Your task to perform on an android device: Go to calendar. Show me events next week Image 0: 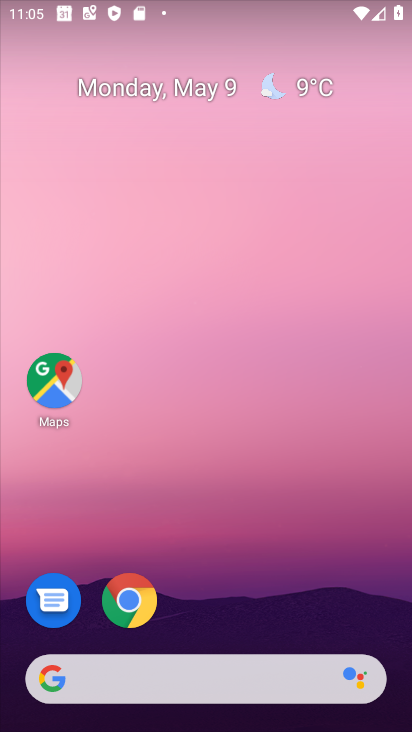
Step 0: drag from (344, 587) to (340, 179)
Your task to perform on an android device: Go to calendar. Show me events next week Image 1: 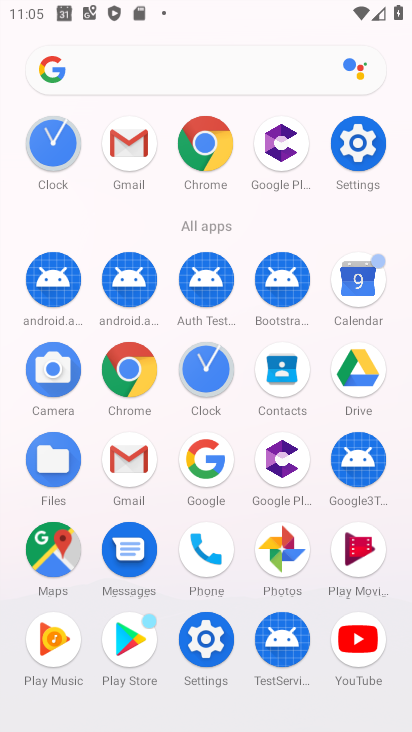
Step 1: click (352, 293)
Your task to perform on an android device: Go to calendar. Show me events next week Image 2: 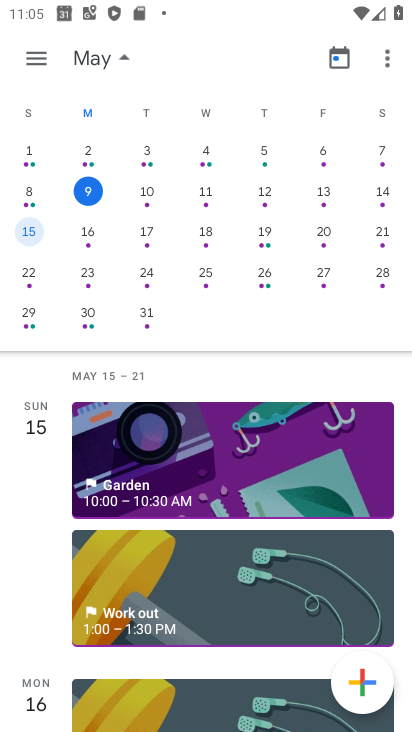
Step 2: click (23, 232)
Your task to perform on an android device: Go to calendar. Show me events next week Image 3: 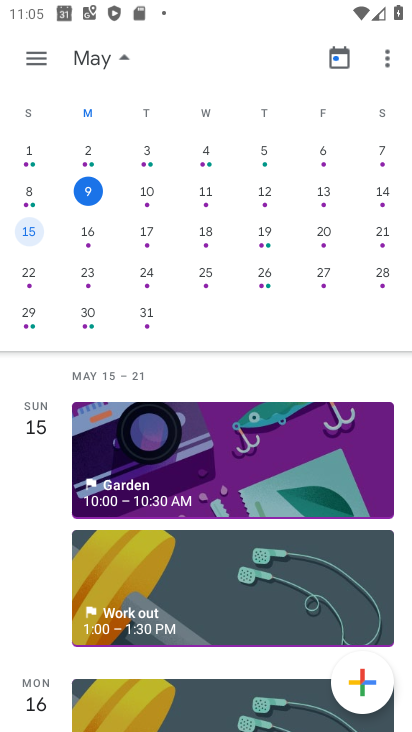
Step 3: task complete